Your task to perform on an android device: snooze an email in the gmail app Image 0: 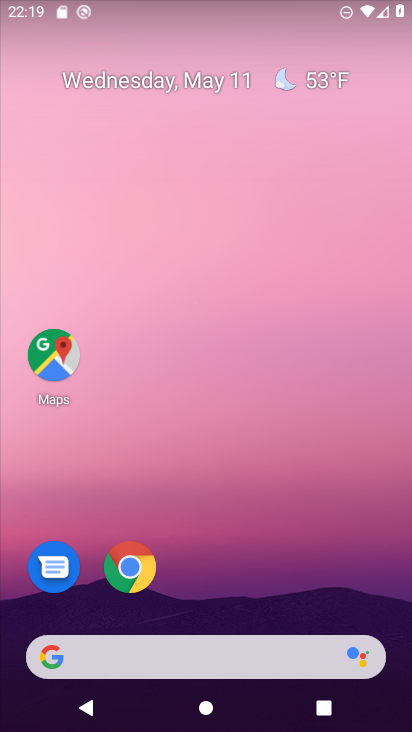
Step 0: drag from (236, 696) to (225, 351)
Your task to perform on an android device: snooze an email in the gmail app Image 1: 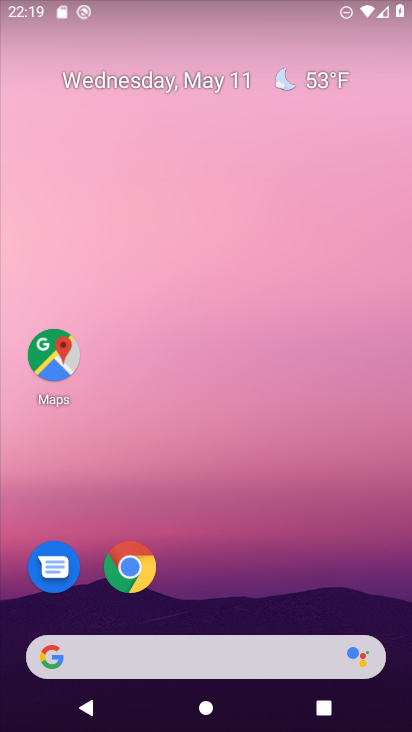
Step 1: drag from (266, 711) to (207, 97)
Your task to perform on an android device: snooze an email in the gmail app Image 2: 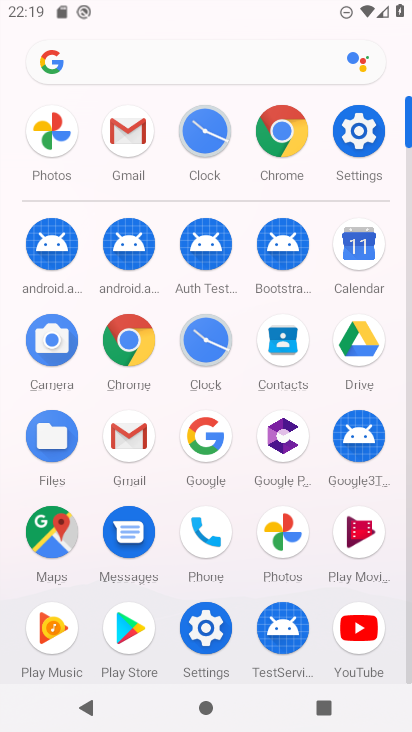
Step 2: click (116, 133)
Your task to perform on an android device: snooze an email in the gmail app Image 3: 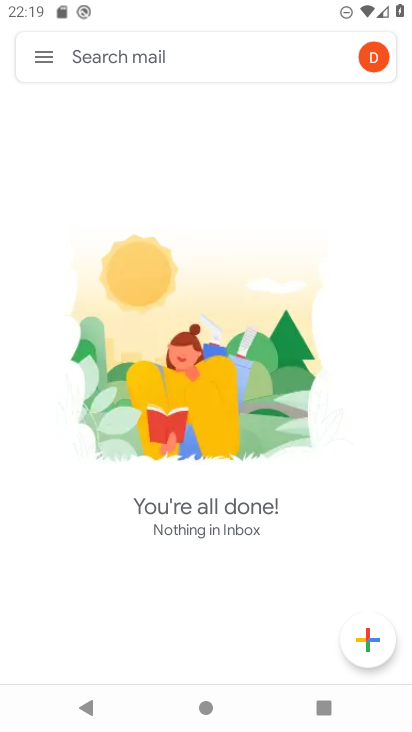
Step 3: click (55, 54)
Your task to perform on an android device: snooze an email in the gmail app Image 4: 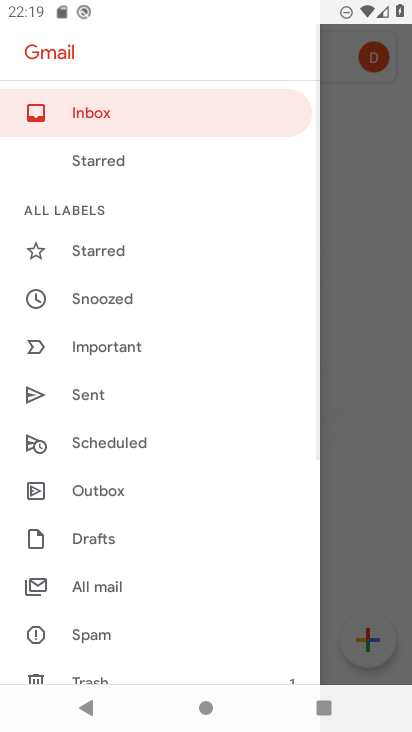
Step 4: click (115, 583)
Your task to perform on an android device: snooze an email in the gmail app Image 5: 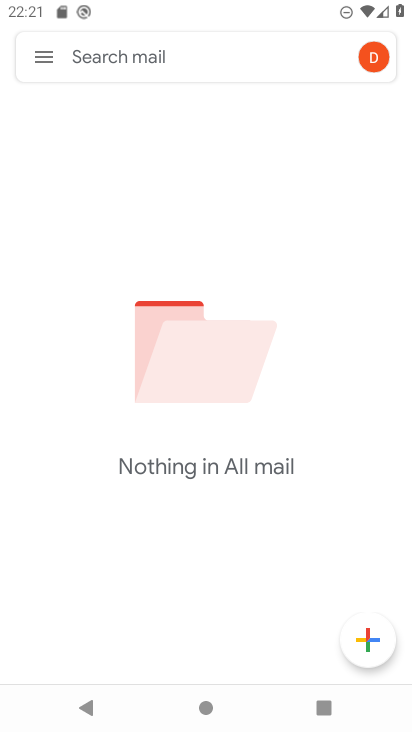
Step 5: task complete